Your task to perform on an android device: Go to ESPN.com Image 0: 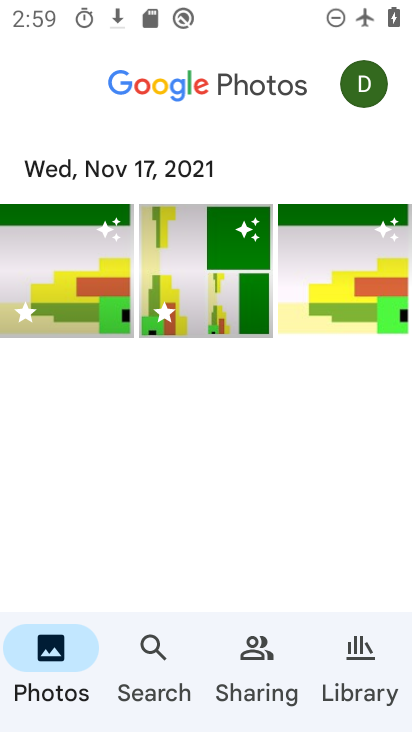
Step 0: press home button
Your task to perform on an android device: Go to ESPN.com Image 1: 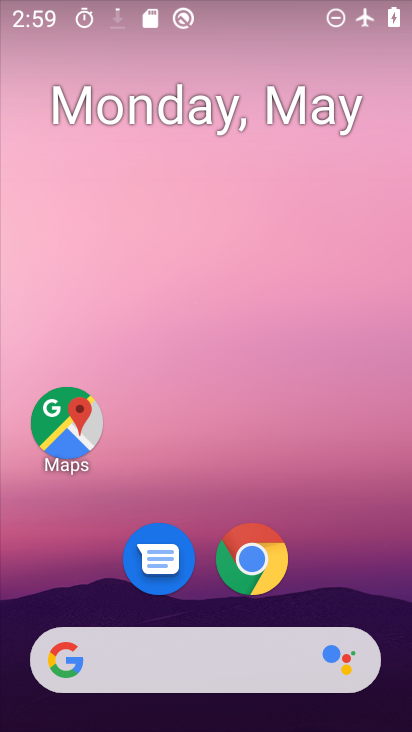
Step 1: drag from (241, 594) to (267, 61)
Your task to perform on an android device: Go to ESPN.com Image 2: 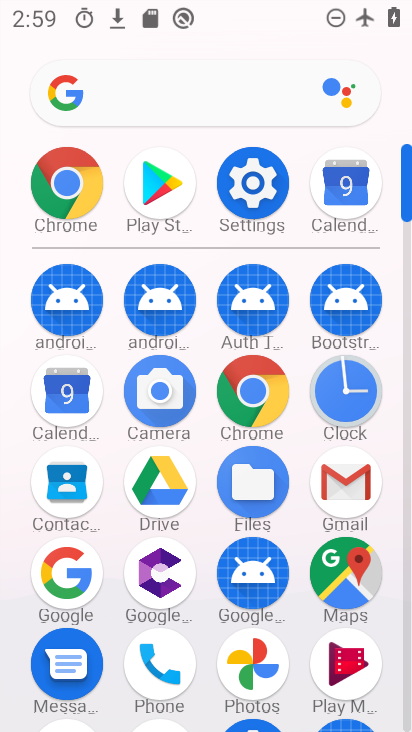
Step 2: click (169, 102)
Your task to perform on an android device: Go to ESPN.com Image 3: 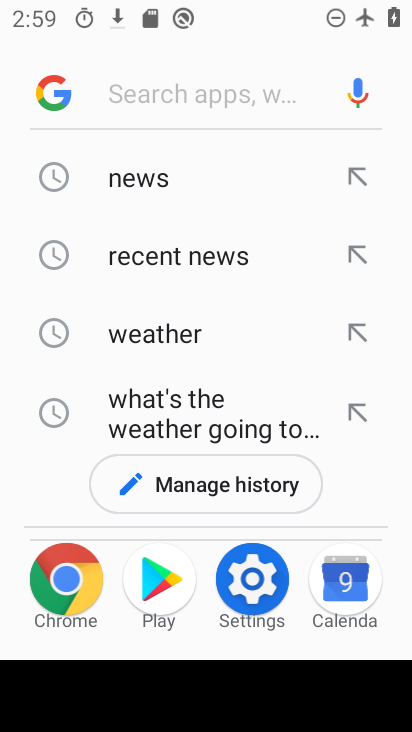
Step 3: type "espn.com"
Your task to perform on an android device: Go to ESPN.com Image 4: 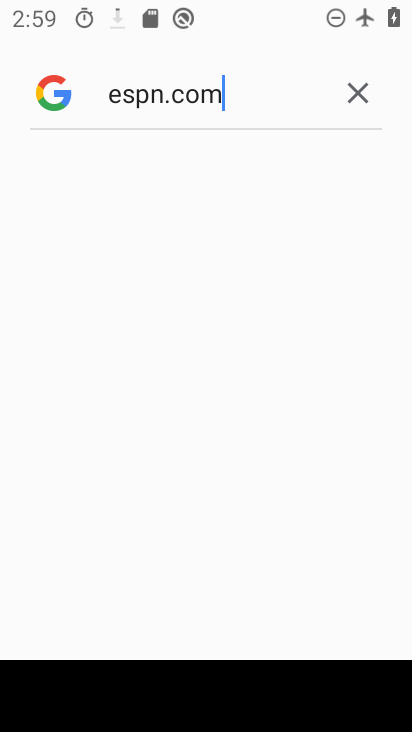
Step 4: task complete